Your task to perform on an android device: Open Google Chrome and open the bookmarks view Image 0: 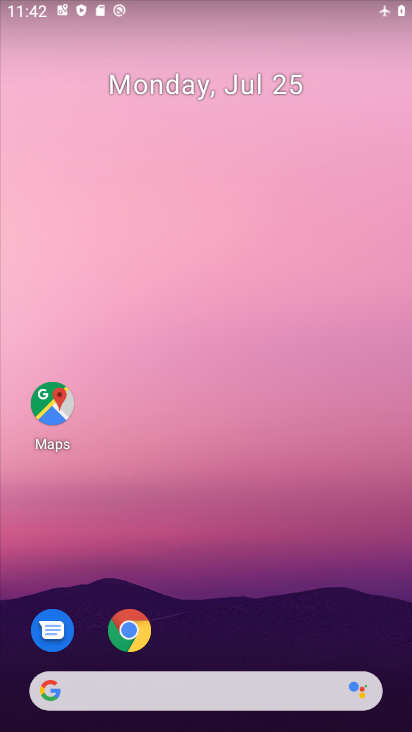
Step 0: press home button
Your task to perform on an android device: Open Google Chrome and open the bookmarks view Image 1: 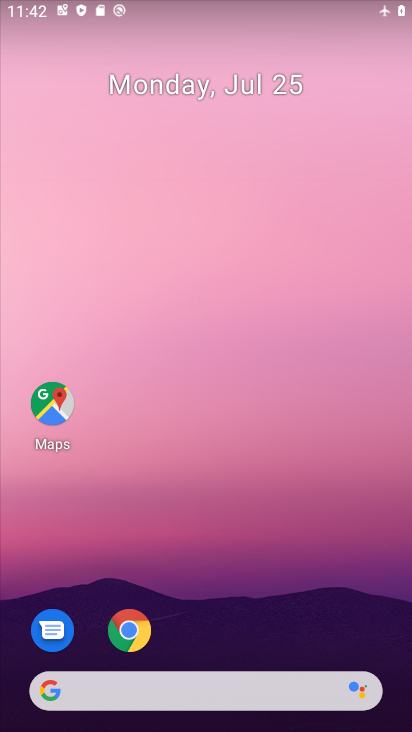
Step 1: drag from (349, 627) to (378, 118)
Your task to perform on an android device: Open Google Chrome and open the bookmarks view Image 2: 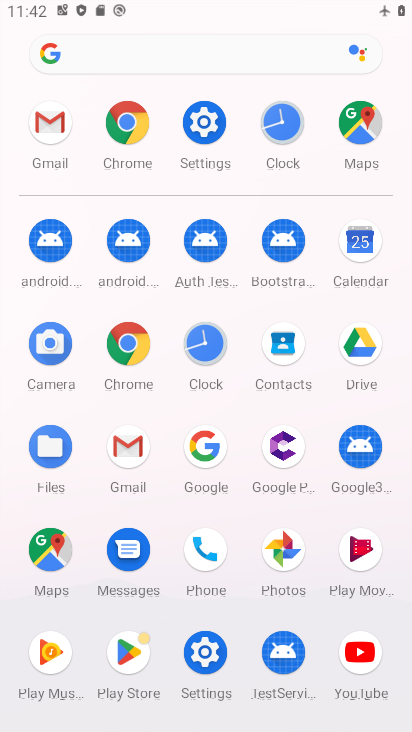
Step 2: click (127, 345)
Your task to perform on an android device: Open Google Chrome and open the bookmarks view Image 3: 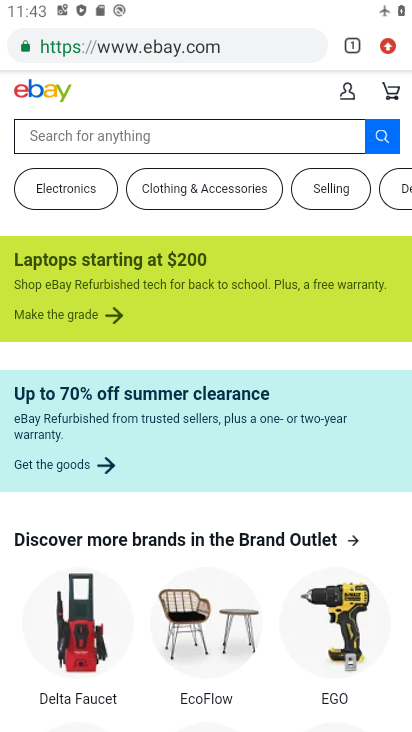
Step 3: click (385, 45)
Your task to perform on an android device: Open Google Chrome and open the bookmarks view Image 4: 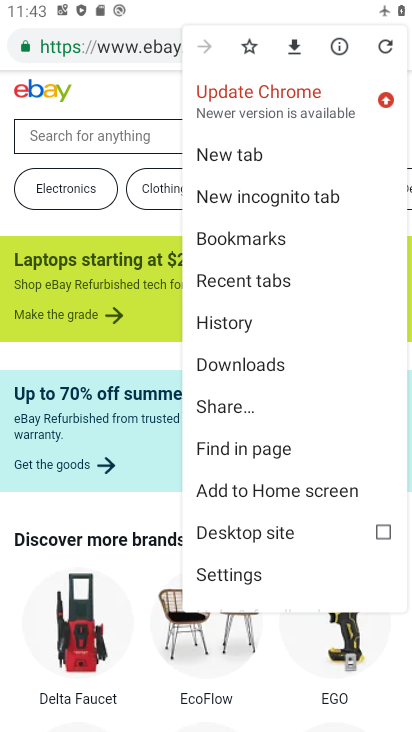
Step 4: click (291, 239)
Your task to perform on an android device: Open Google Chrome and open the bookmarks view Image 5: 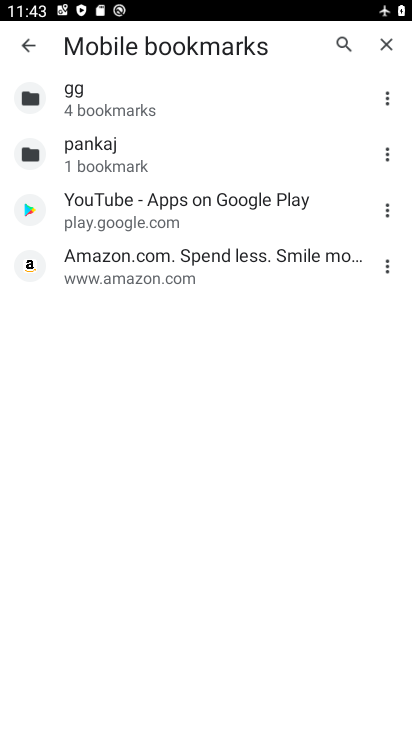
Step 5: task complete